Your task to perform on an android device: Open eBay Image 0: 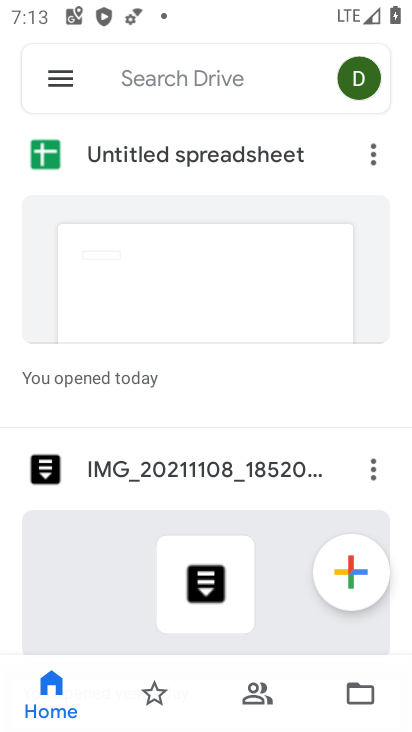
Step 0: press home button
Your task to perform on an android device: Open eBay Image 1: 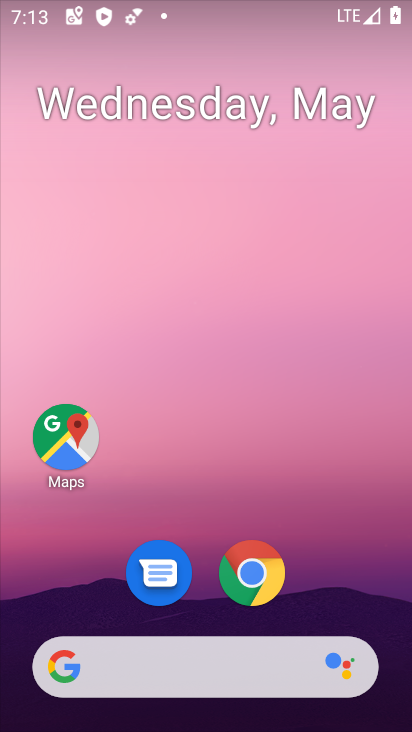
Step 1: drag from (329, 565) to (273, 225)
Your task to perform on an android device: Open eBay Image 2: 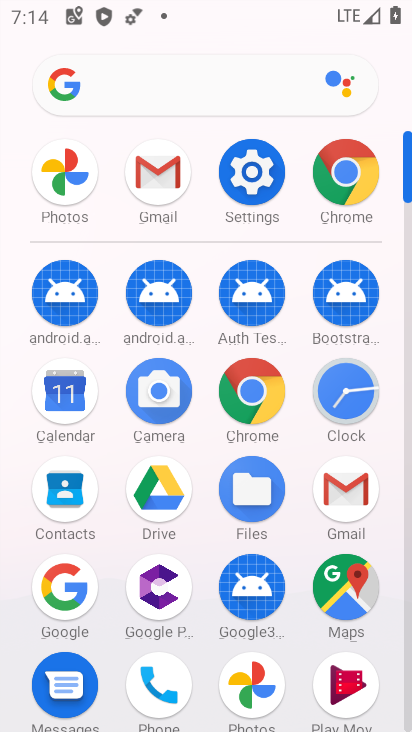
Step 2: click (344, 210)
Your task to perform on an android device: Open eBay Image 3: 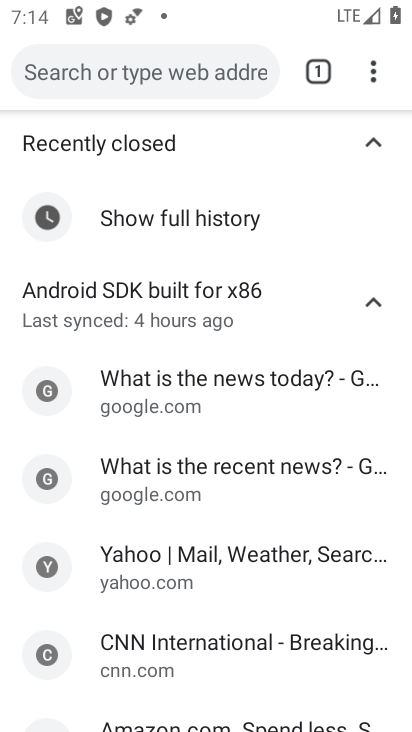
Step 3: press back button
Your task to perform on an android device: Open eBay Image 4: 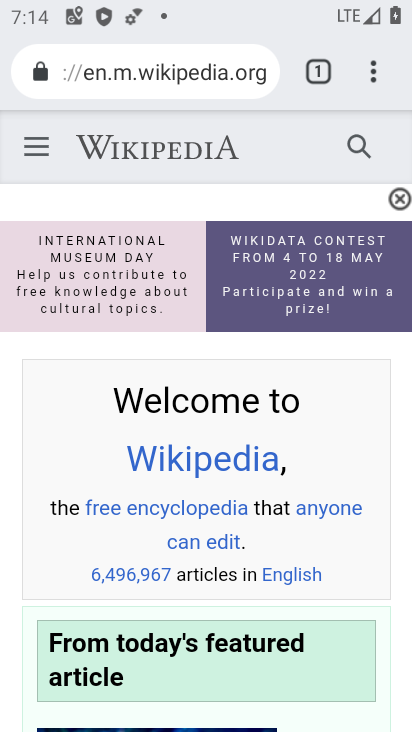
Step 4: press back button
Your task to perform on an android device: Open eBay Image 5: 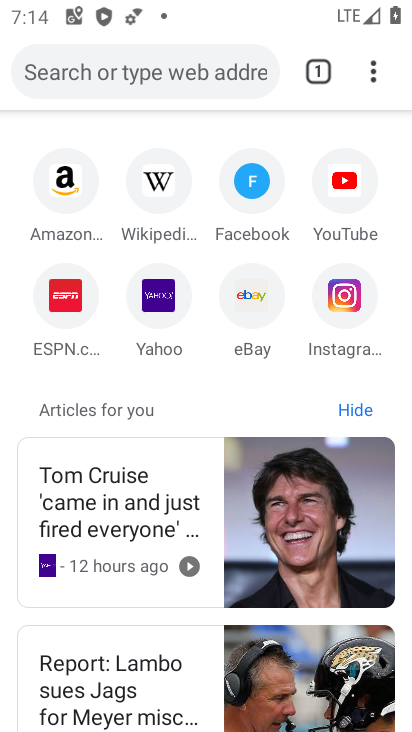
Step 5: click (251, 296)
Your task to perform on an android device: Open eBay Image 6: 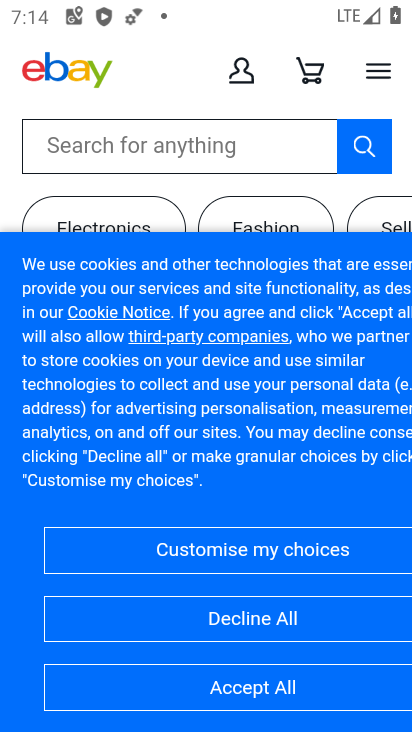
Step 6: task complete